Your task to perform on an android device: turn on showing notifications on the lock screen Image 0: 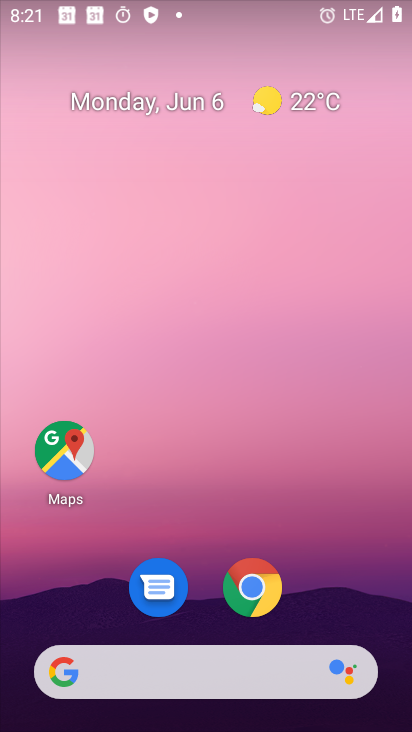
Step 0: drag from (170, 654) to (155, 362)
Your task to perform on an android device: turn on showing notifications on the lock screen Image 1: 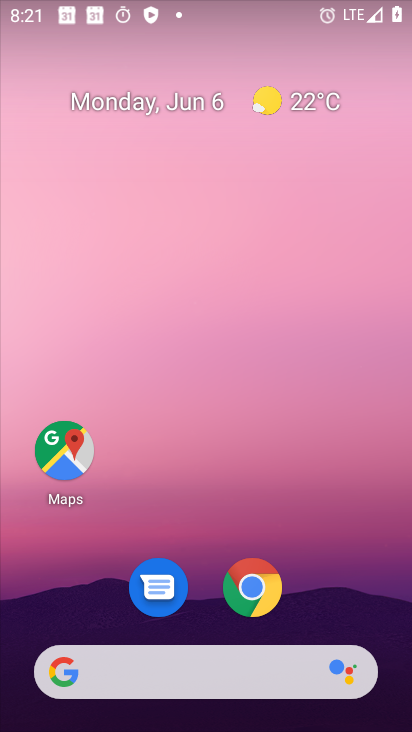
Step 1: drag from (241, 614) to (236, 228)
Your task to perform on an android device: turn on showing notifications on the lock screen Image 2: 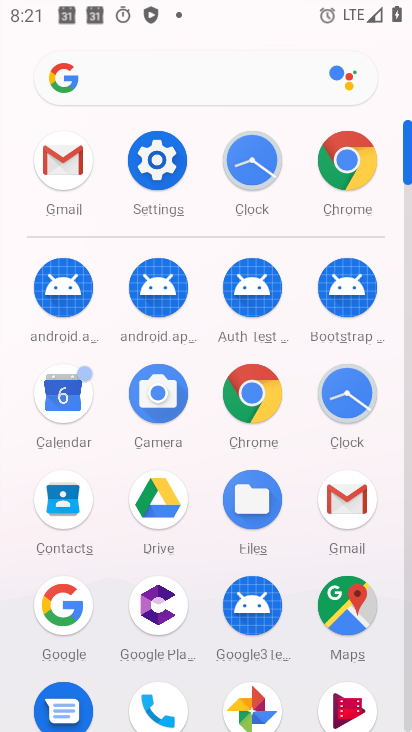
Step 2: click (167, 171)
Your task to perform on an android device: turn on showing notifications on the lock screen Image 3: 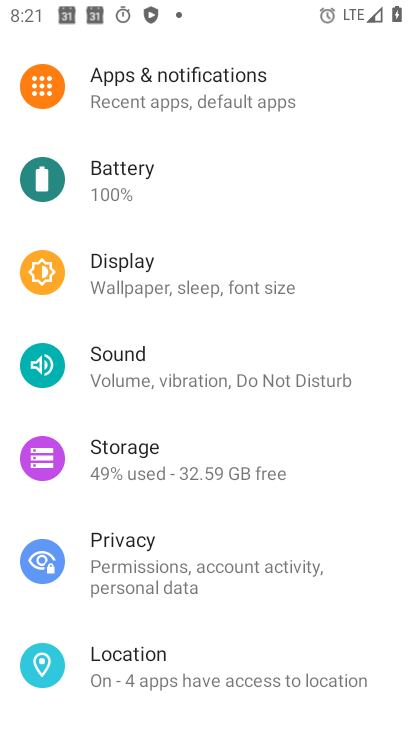
Step 3: click (145, 585)
Your task to perform on an android device: turn on showing notifications on the lock screen Image 4: 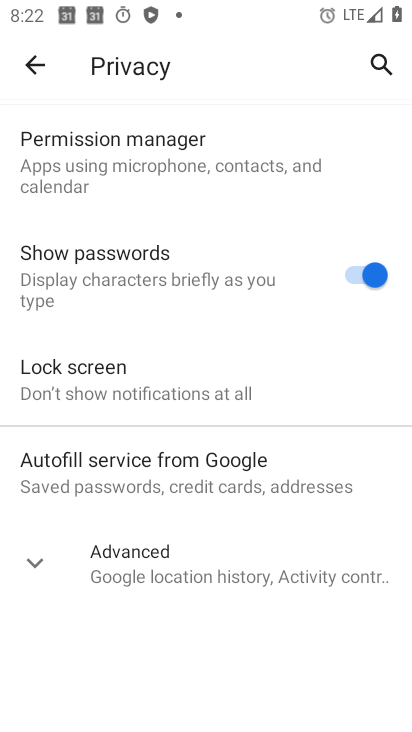
Step 4: click (149, 568)
Your task to perform on an android device: turn on showing notifications on the lock screen Image 5: 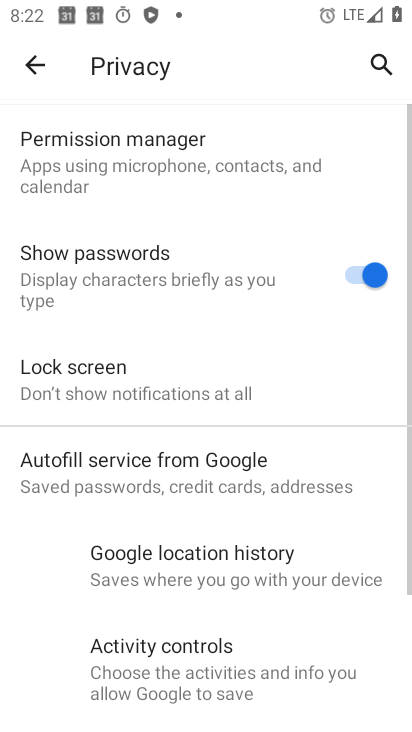
Step 5: click (164, 395)
Your task to perform on an android device: turn on showing notifications on the lock screen Image 6: 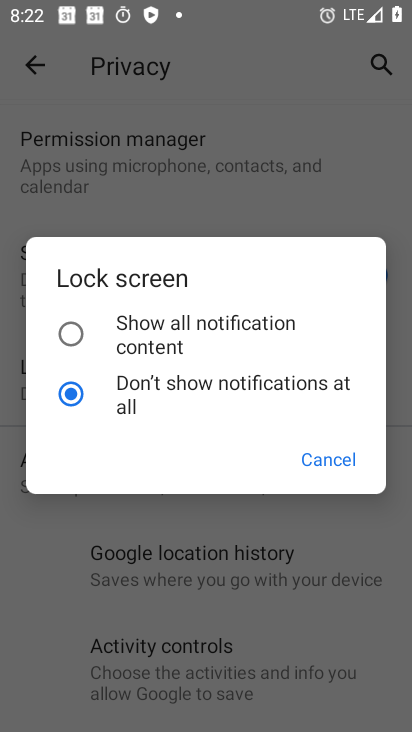
Step 6: click (209, 329)
Your task to perform on an android device: turn on showing notifications on the lock screen Image 7: 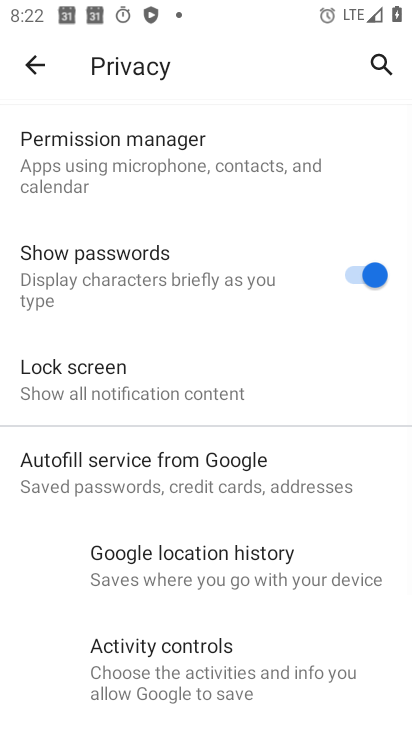
Step 7: task complete